Your task to perform on an android device: Search for vegetarian restaurants on Maps Image 0: 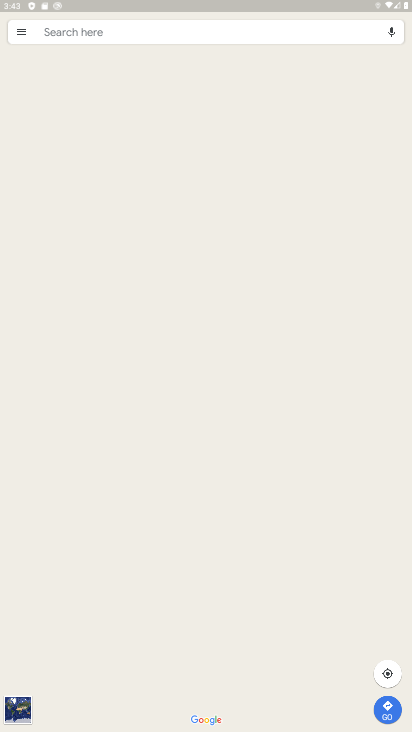
Step 0: press home button
Your task to perform on an android device: Search for vegetarian restaurants on Maps Image 1: 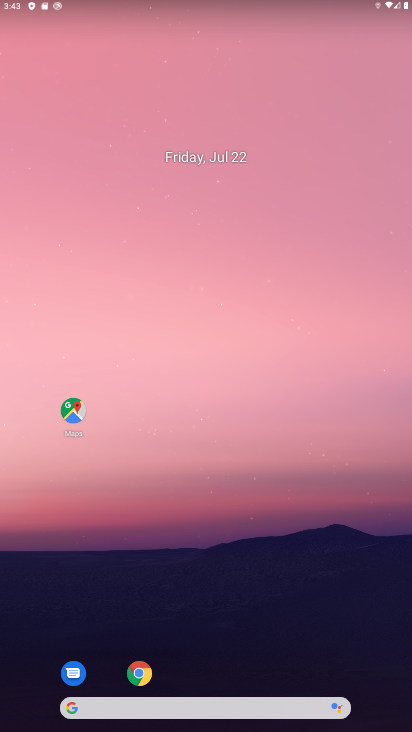
Step 1: click (71, 407)
Your task to perform on an android device: Search for vegetarian restaurants on Maps Image 2: 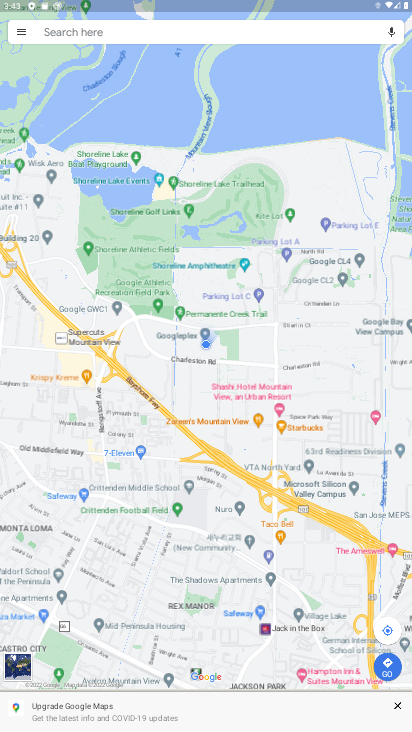
Step 2: click (93, 28)
Your task to perform on an android device: Search for vegetarian restaurants on Maps Image 3: 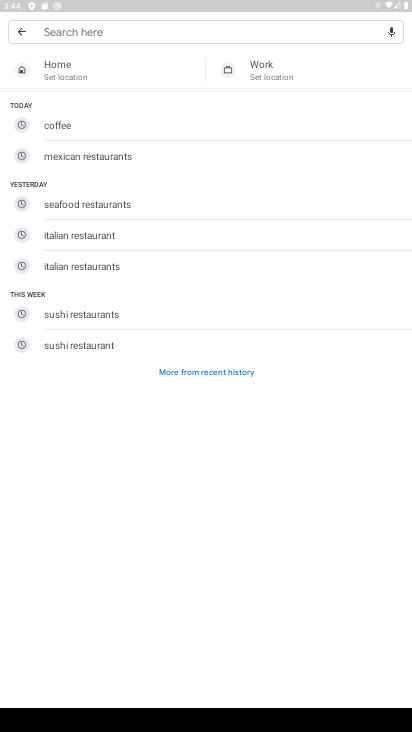
Step 3: type "vegetarian"
Your task to perform on an android device: Search for vegetarian restaurants on Maps Image 4: 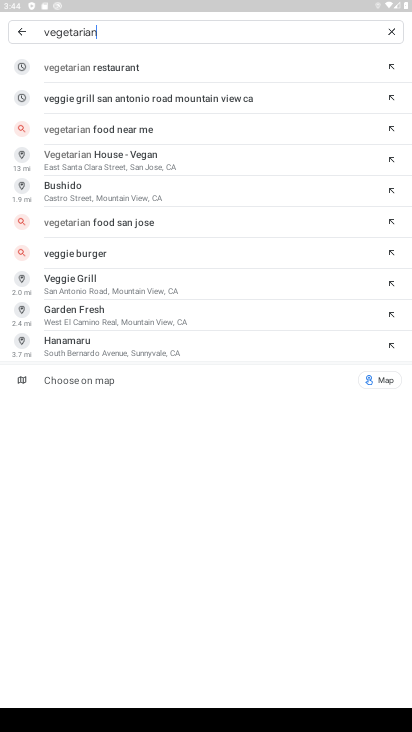
Step 4: click (39, 64)
Your task to perform on an android device: Search for vegetarian restaurants on Maps Image 5: 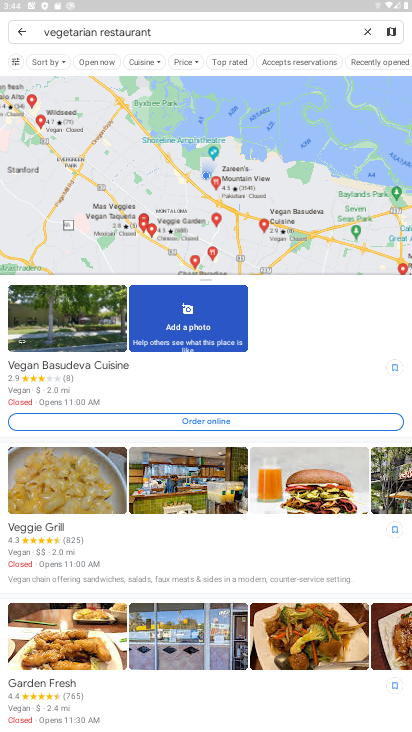
Step 5: task complete